Your task to perform on an android device: turn off javascript in the chrome app Image 0: 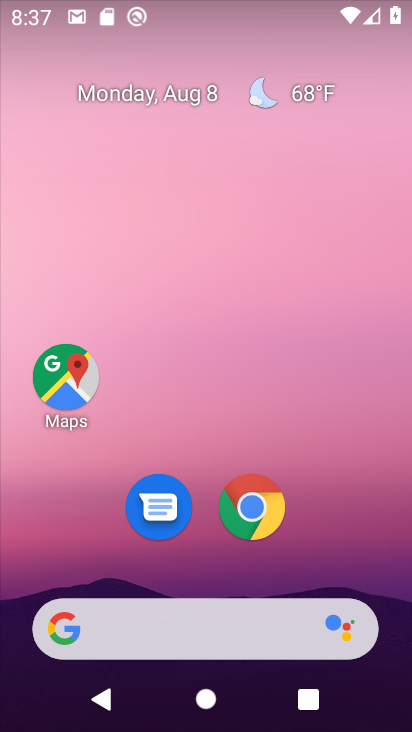
Step 0: click (282, 496)
Your task to perform on an android device: turn off javascript in the chrome app Image 1: 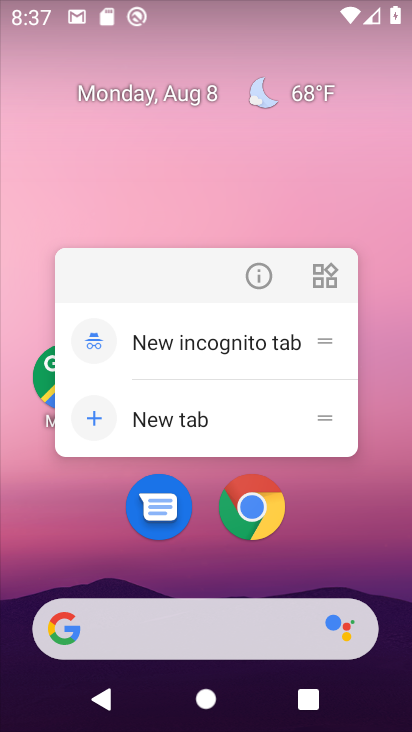
Step 1: click (370, 526)
Your task to perform on an android device: turn off javascript in the chrome app Image 2: 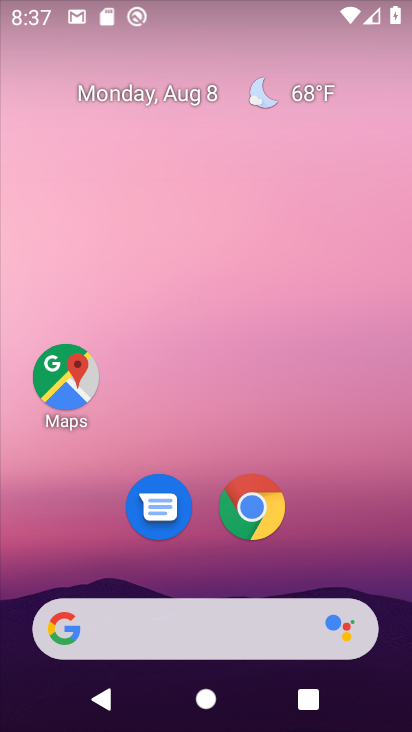
Step 2: click (283, 497)
Your task to perform on an android device: turn off javascript in the chrome app Image 3: 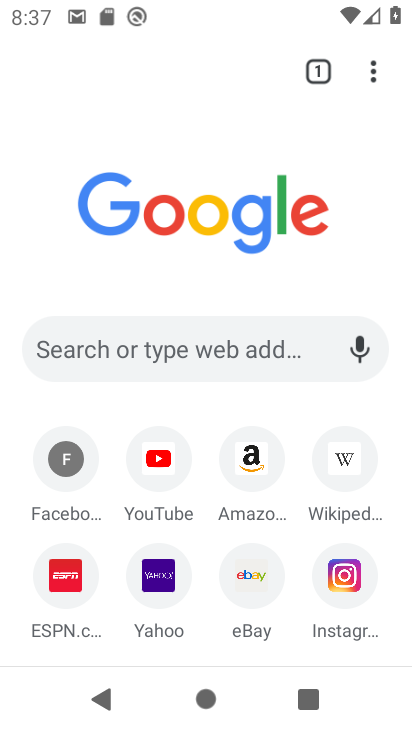
Step 3: click (368, 70)
Your task to perform on an android device: turn off javascript in the chrome app Image 4: 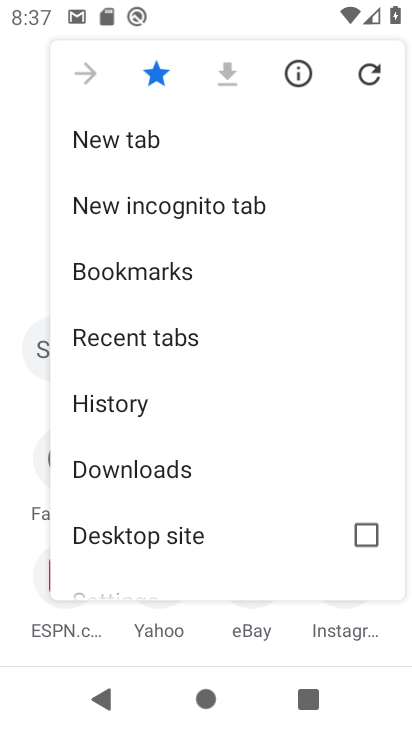
Step 4: drag from (256, 464) to (204, 30)
Your task to perform on an android device: turn off javascript in the chrome app Image 5: 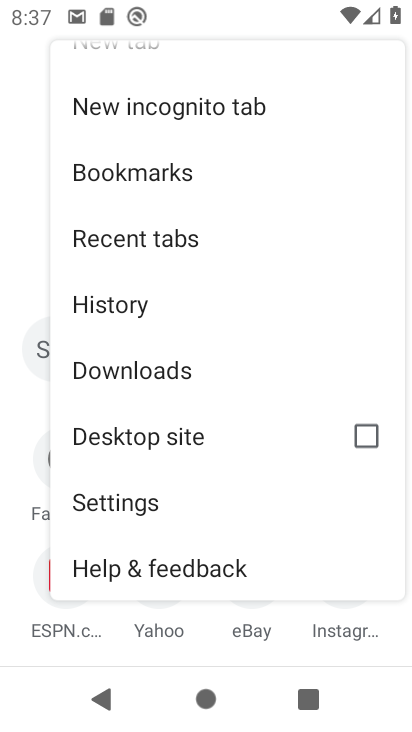
Step 5: click (90, 490)
Your task to perform on an android device: turn off javascript in the chrome app Image 6: 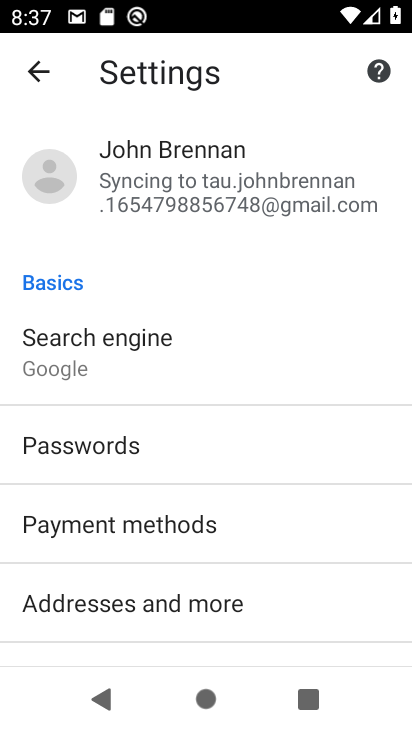
Step 6: drag from (90, 490) to (9, 5)
Your task to perform on an android device: turn off javascript in the chrome app Image 7: 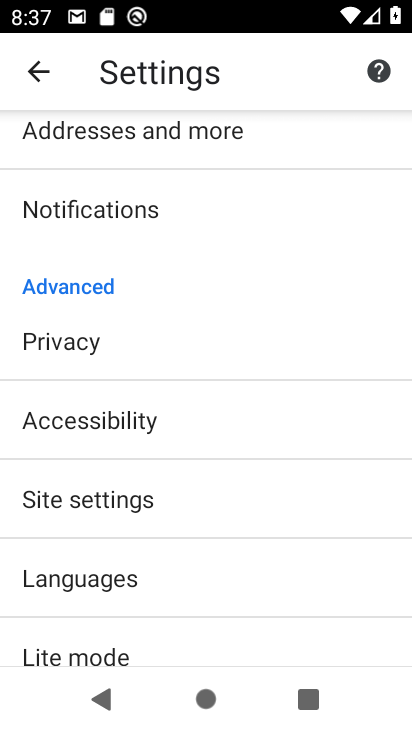
Step 7: click (133, 501)
Your task to perform on an android device: turn off javascript in the chrome app Image 8: 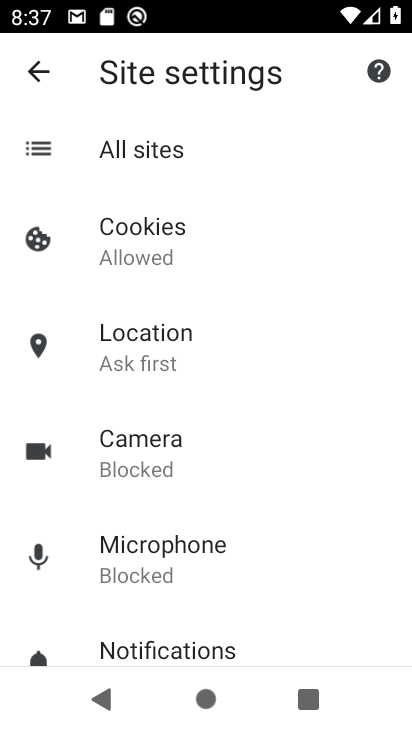
Step 8: drag from (133, 501) to (33, 36)
Your task to perform on an android device: turn off javascript in the chrome app Image 9: 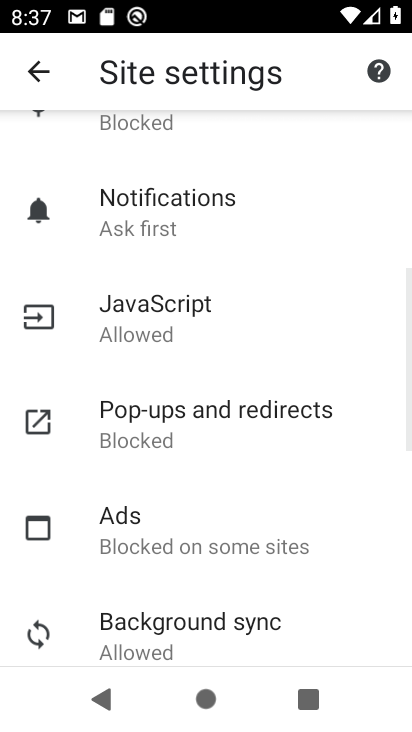
Step 9: click (157, 293)
Your task to perform on an android device: turn off javascript in the chrome app Image 10: 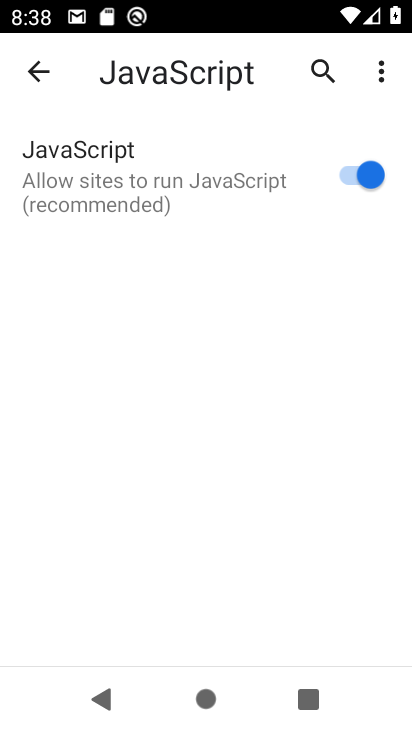
Step 10: click (355, 170)
Your task to perform on an android device: turn off javascript in the chrome app Image 11: 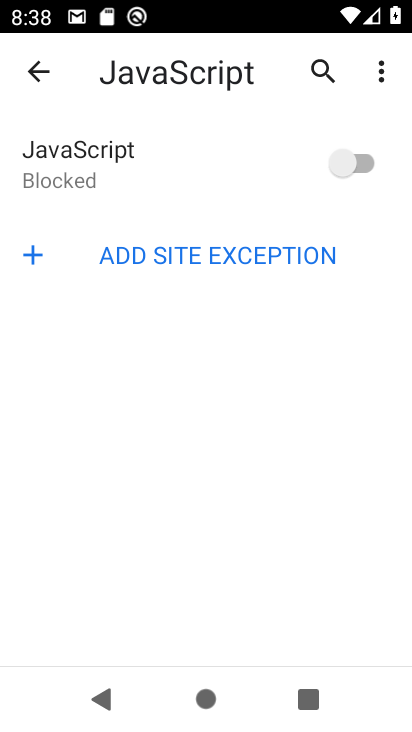
Step 11: task complete